Your task to perform on an android device: Open Yahoo.com Image 0: 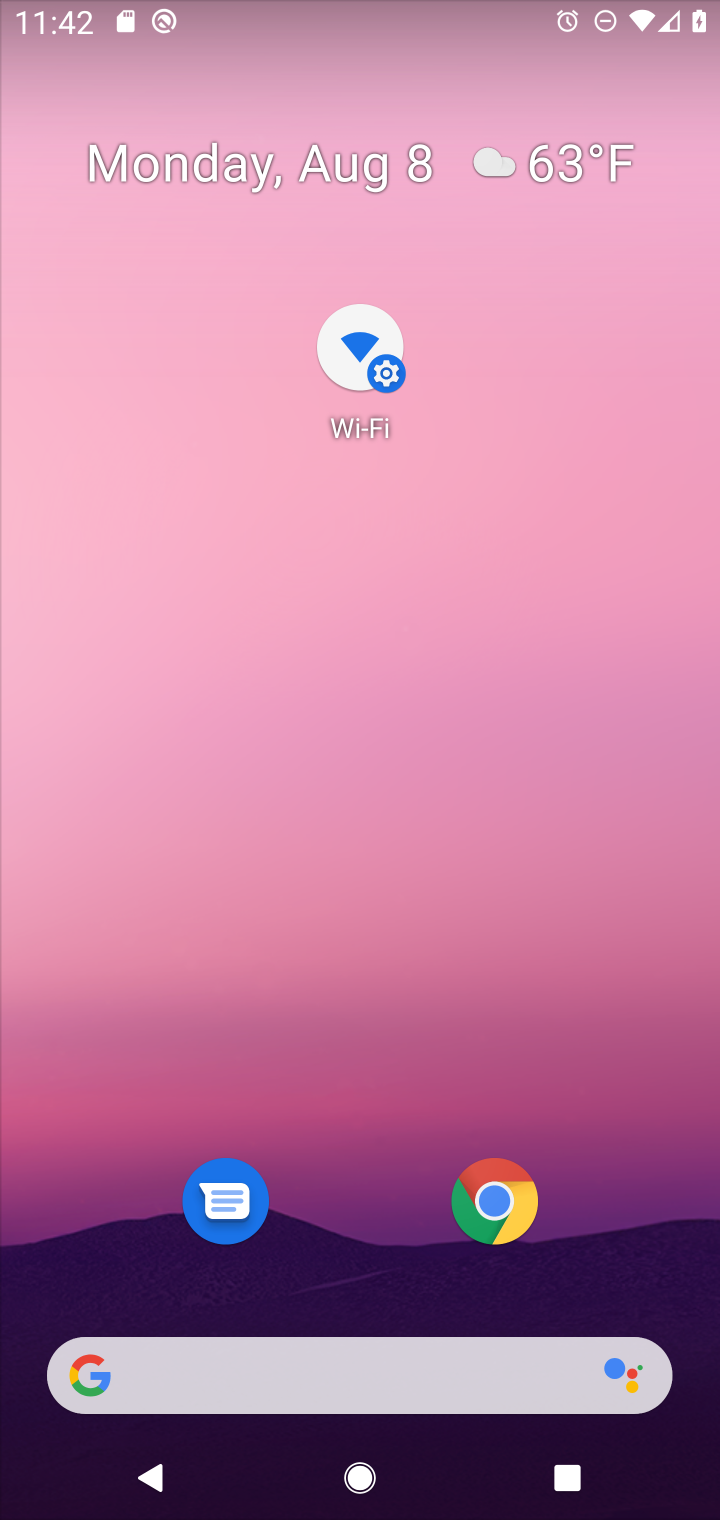
Step 0: press home button
Your task to perform on an android device: Open Yahoo.com Image 1: 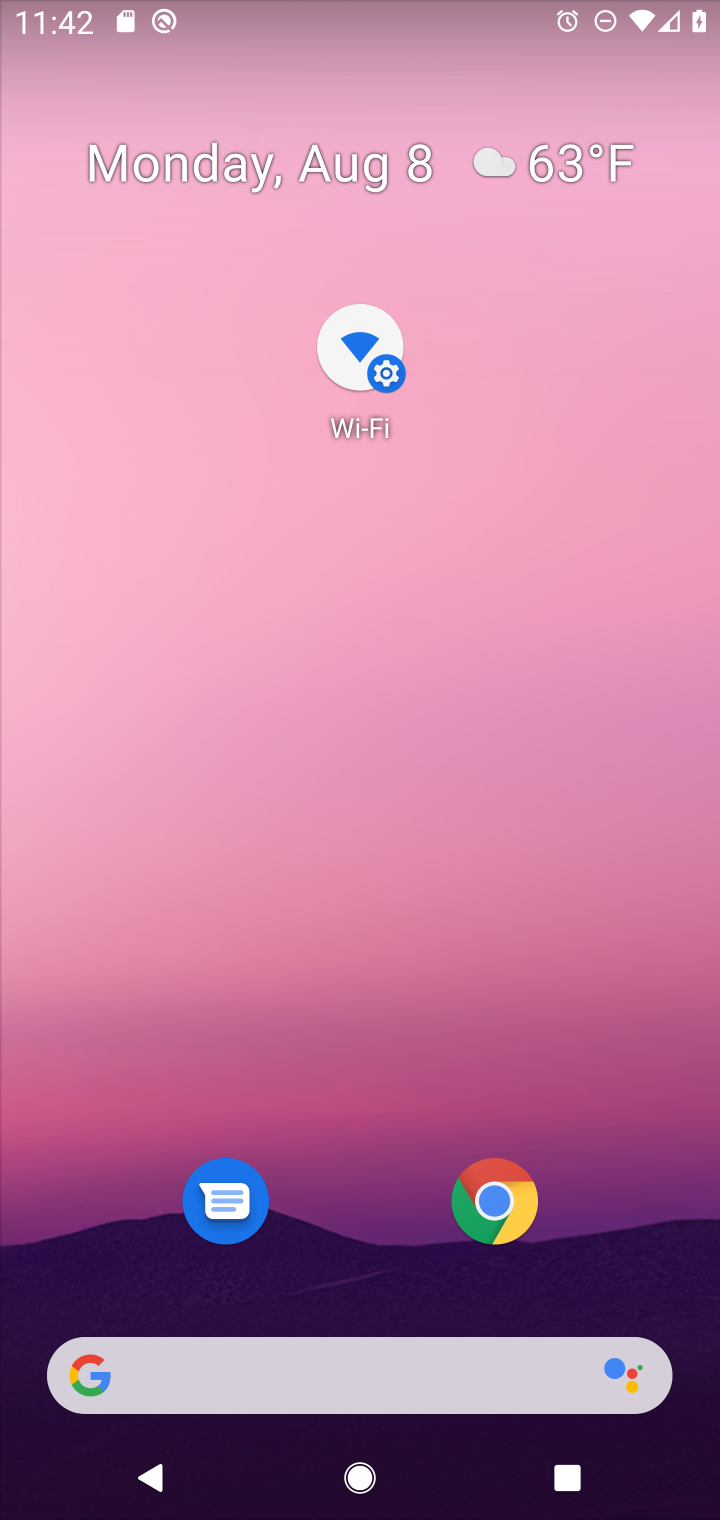
Step 1: drag from (426, 1039) to (540, 183)
Your task to perform on an android device: Open Yahoo.com Image 2: 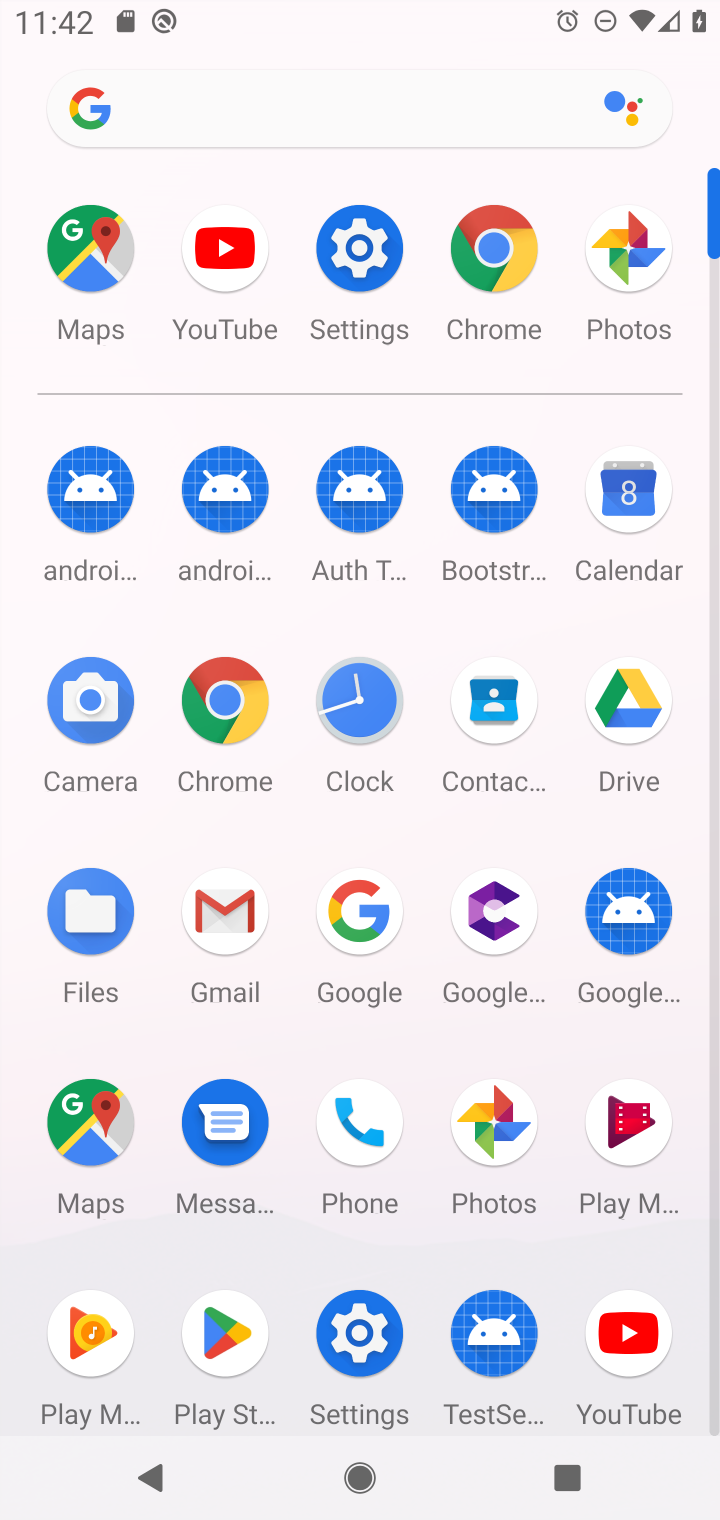
Step 2: click (232, 700)
Your task to perform on an android device: Open Yahoo.com Image 3: 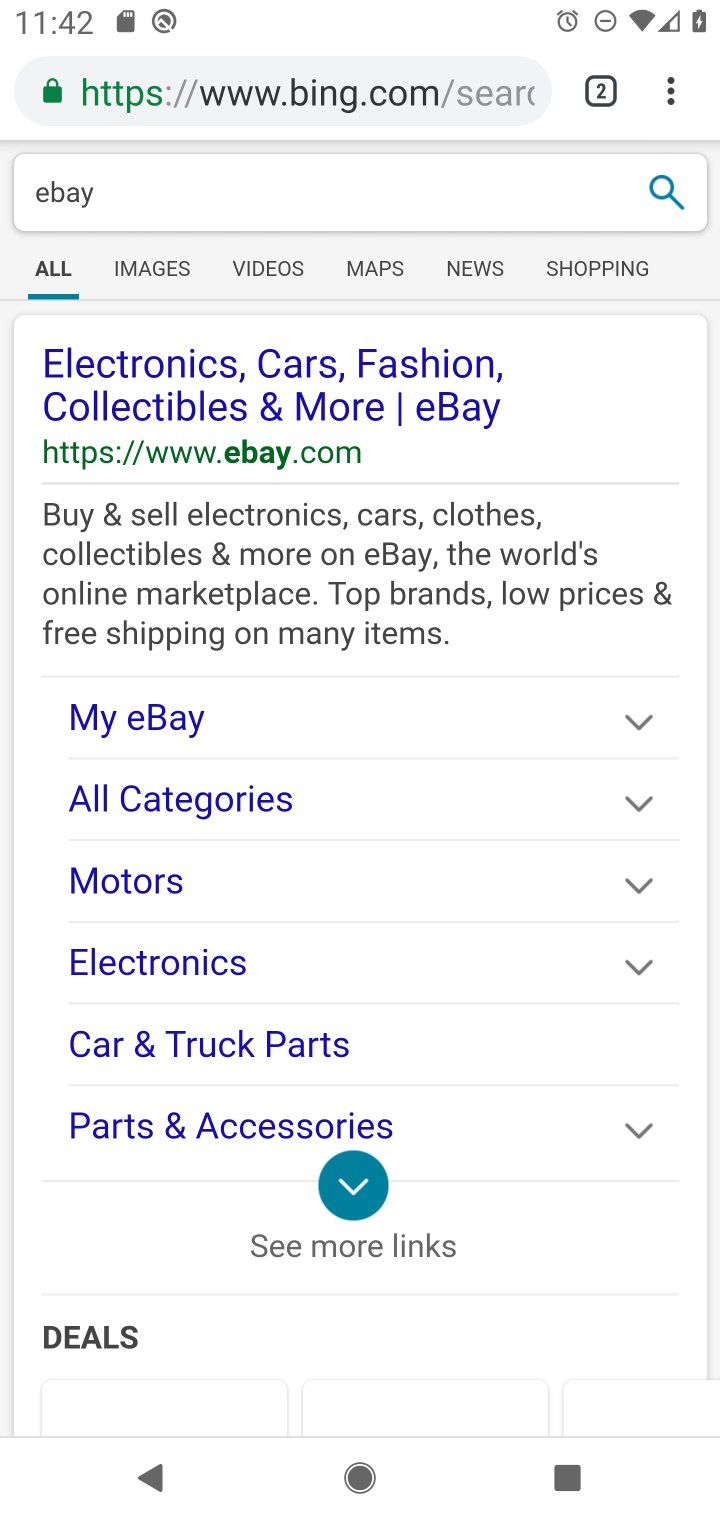
Step 3: click (407, 92)
Your task to perform on an android device: Open Yahoo.com Image 4: 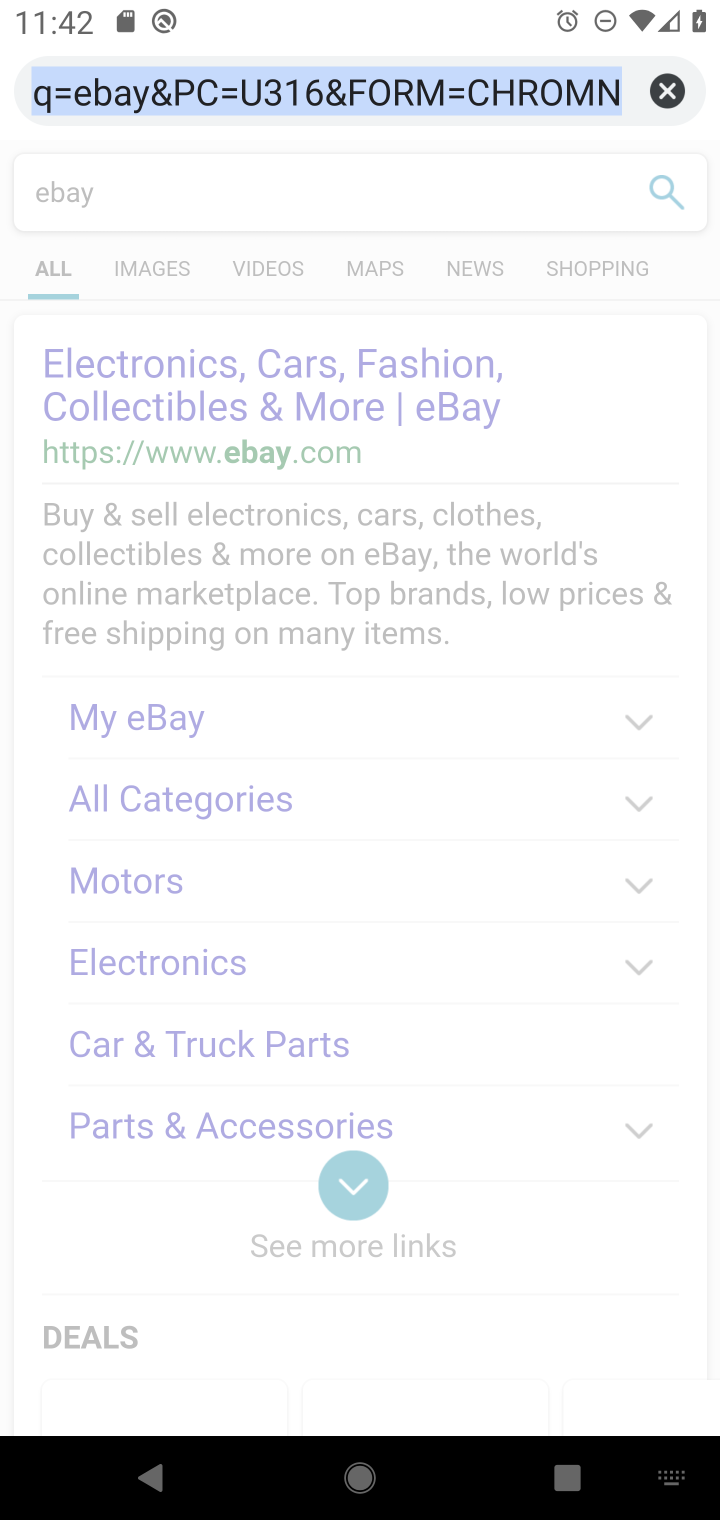
Step 4: type "yahoo.com"
Your task to perform on an android device: Open Yahoo.com Image 5: 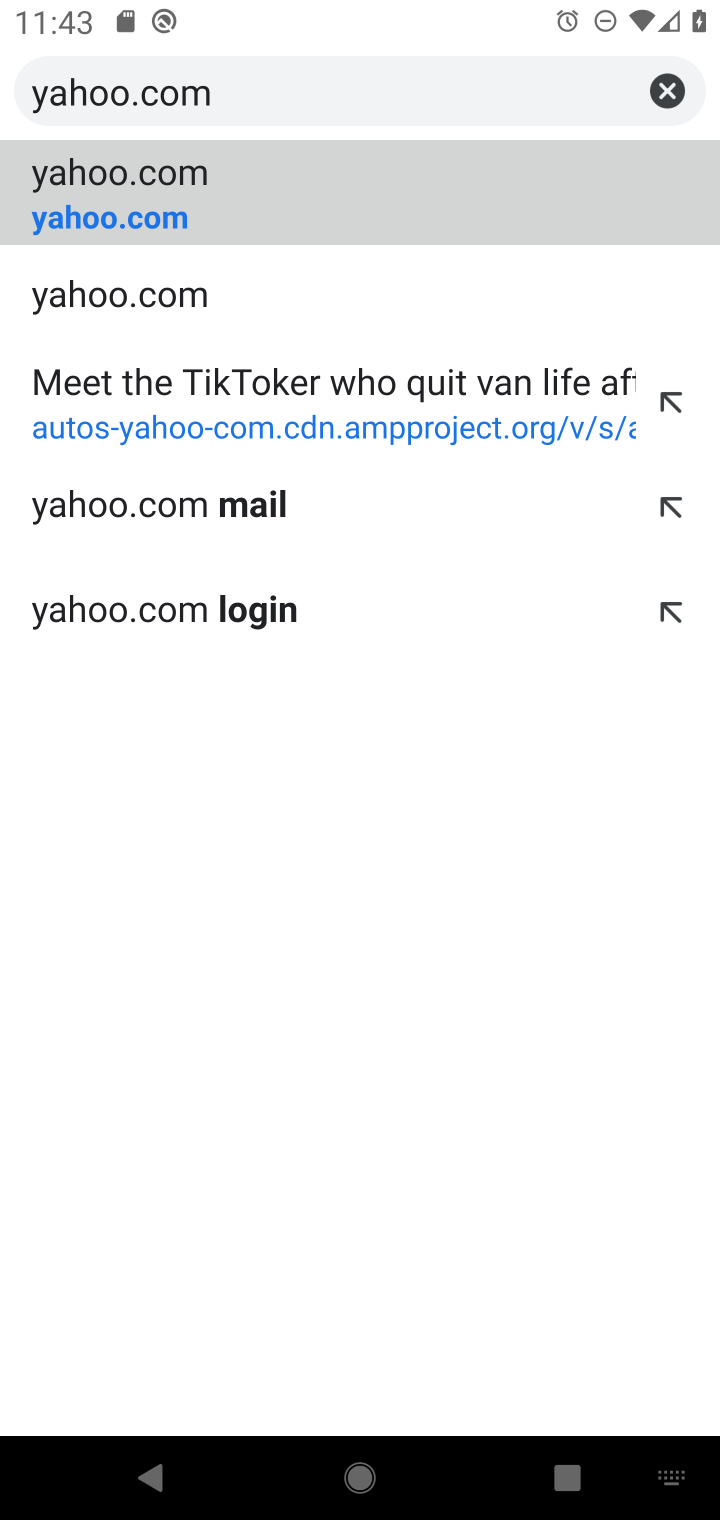
Step 5: click (196, 172)
Your task to perform on an android device: Open Yahoo.com Image 6: 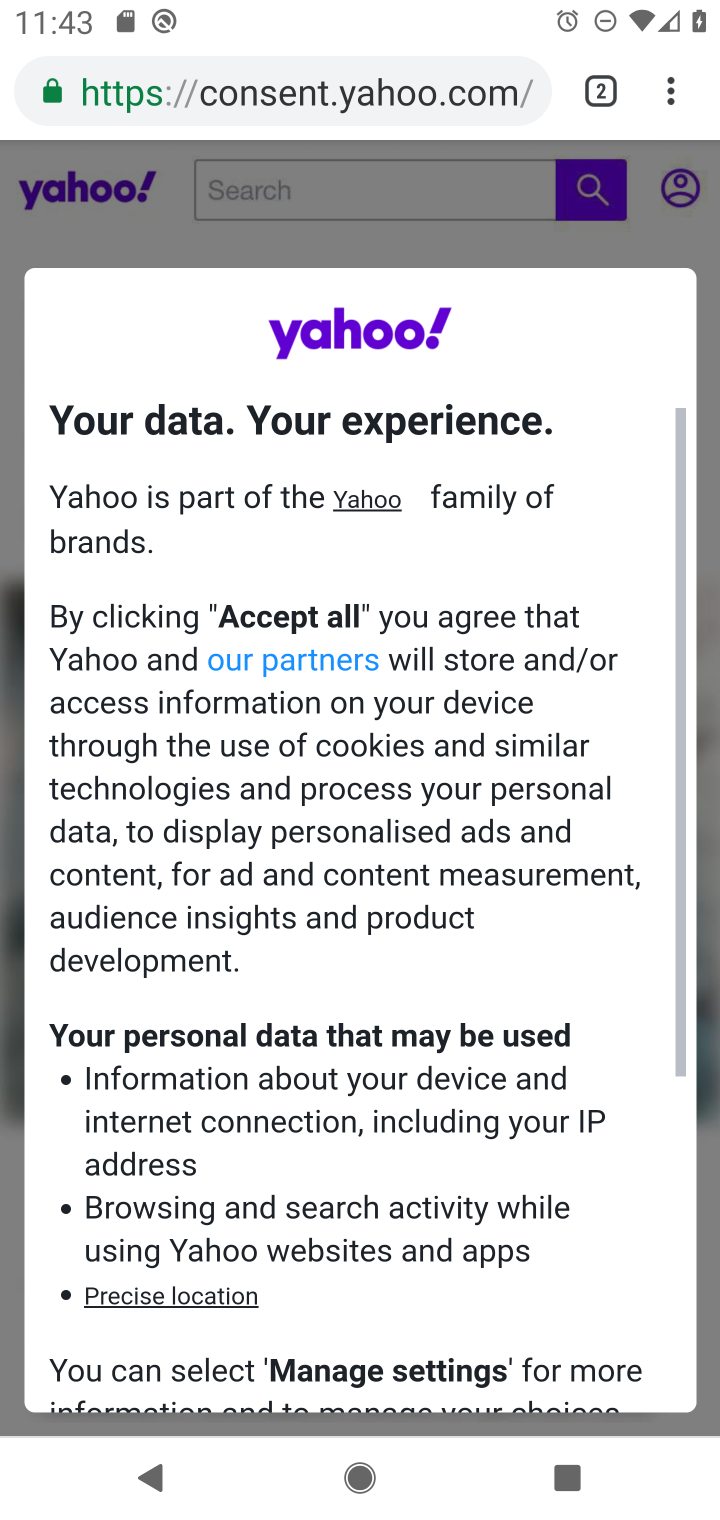
Step 6: task complete